Your task to perform on an android device: add a label to a message in the gmail app Image 0: 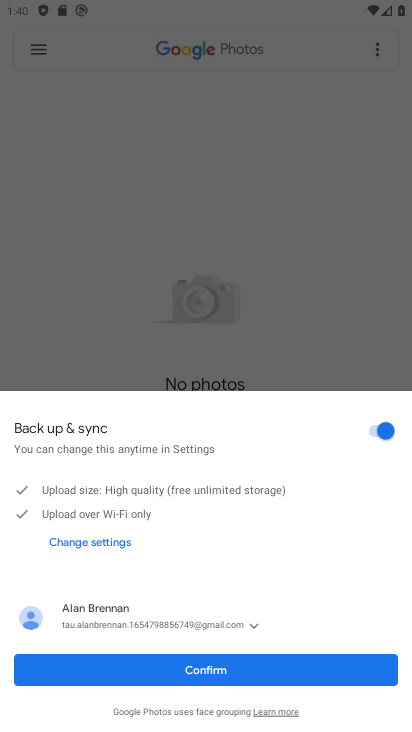
Step 0: press home button
Your task to perform on an android device: add a label to a message in the gmail app Image 1: 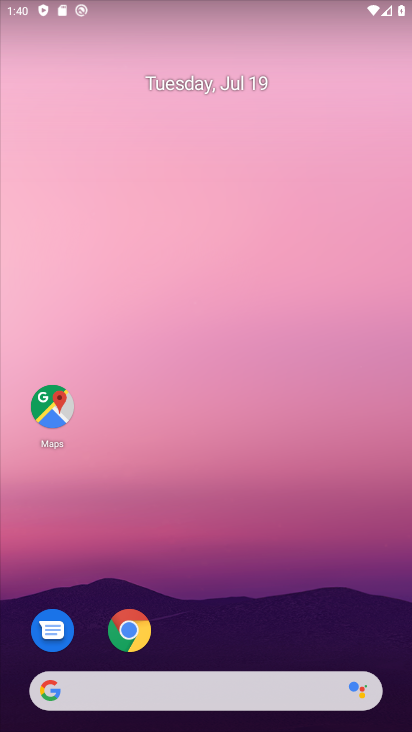
Step 1: drag from (202, 651) to (204, 0)
Your task to perform on an android device: add a label to a message in the gmail app Image 2: 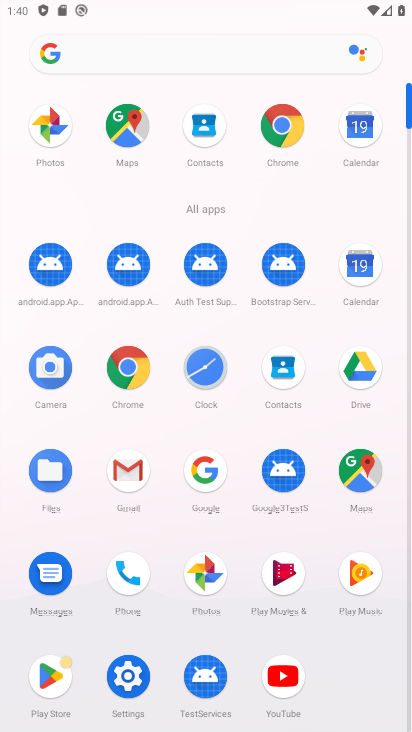
Step 2: click (126, 465)
Your task to perform on an android device: add a label to a message in the gmail app Image 3: 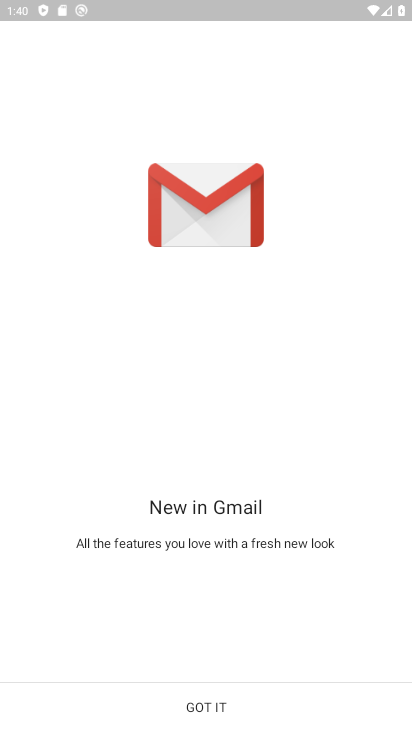
Step 3: click (211, 709)
Your task to perform on an android device: add a label to a message in the gmail app Image 4: 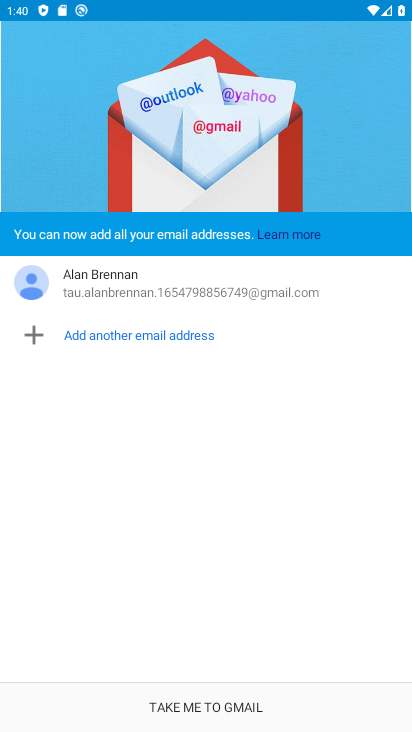
Step 4: click (213, 705)
Your task to perform on an android device: add a label to a message in the gmail app Image 5: 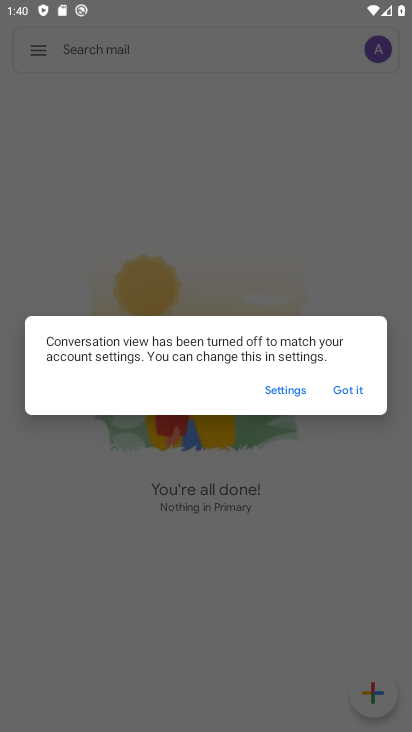
Step 5: click (350, 389)
Your task to perform on an android device: add a label to a message in the gmail app Image 6: 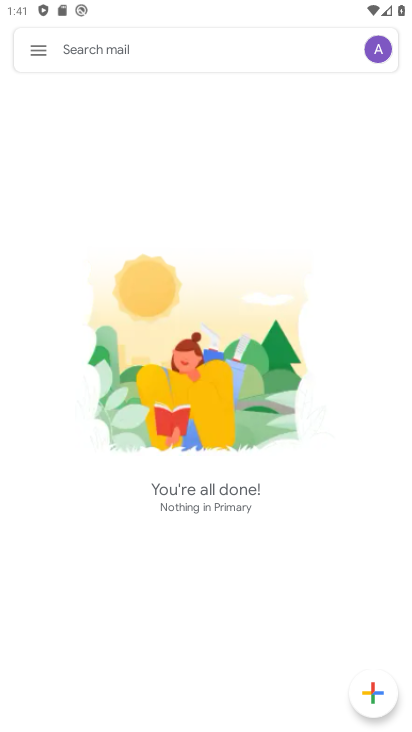
Step 6: task complete